Your task to perform on an android device: Find coffee shops on Maps Image 0: 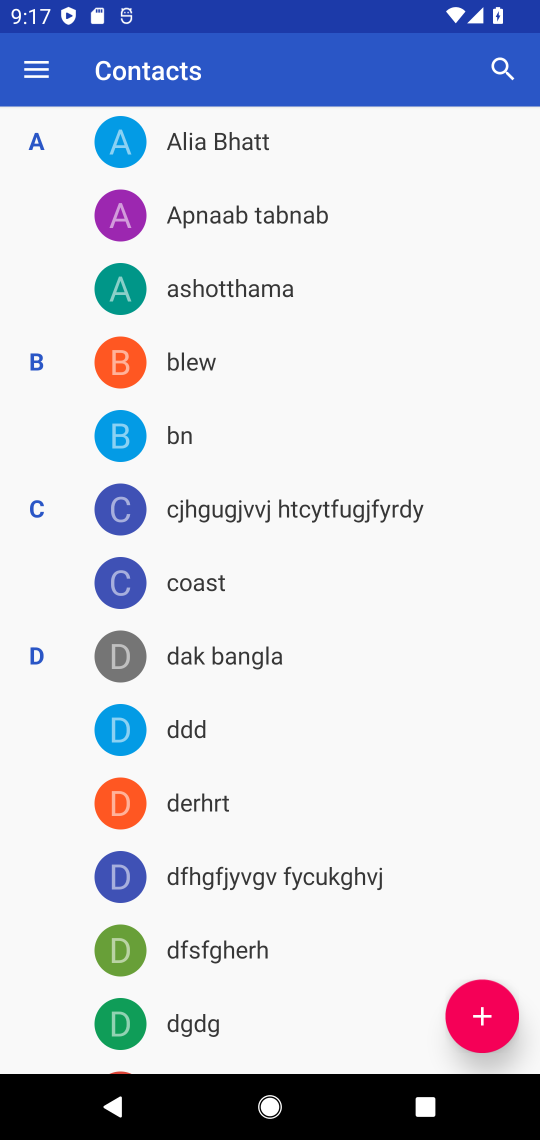
Step 0: press home button
Your task to perform on an android device: Find coffee shops on Maps Image 1: 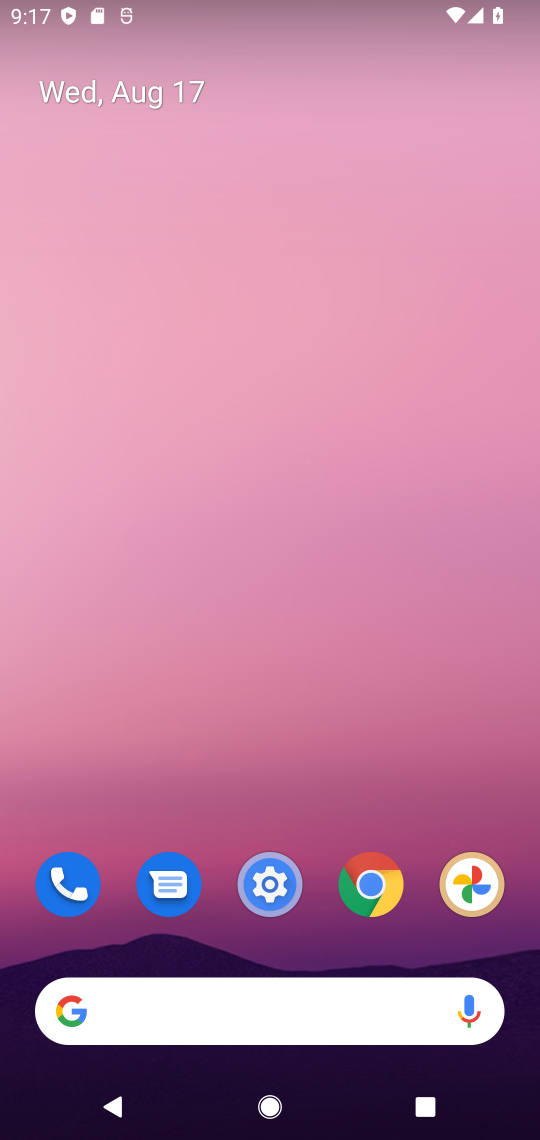
Step 1: drag from (284, 745) to (284, 61)
Your task to perform on an android device: Find coffee shops on Maps Image 2: 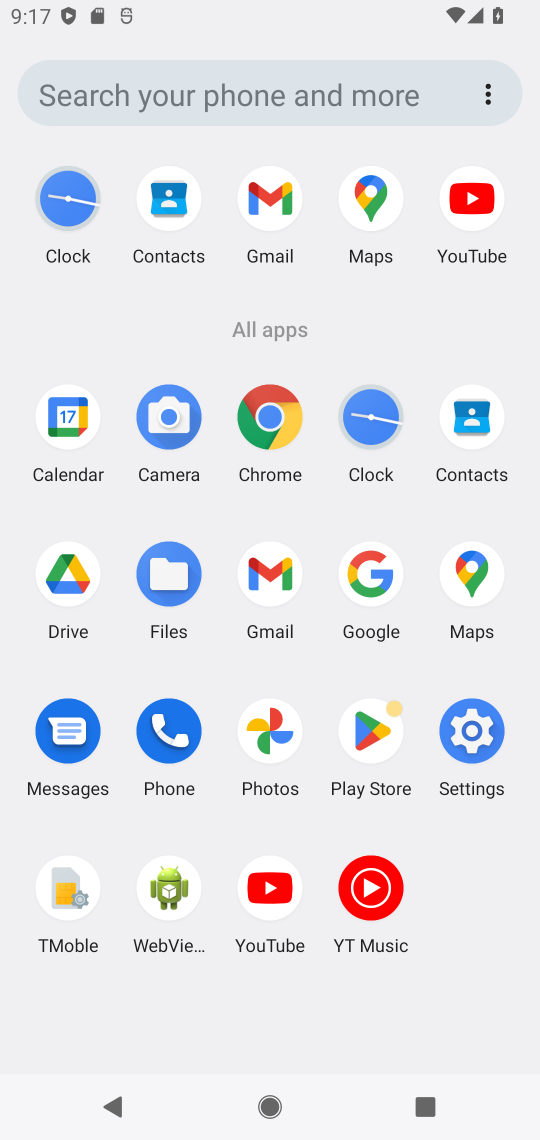
Step 2: click (379, 196)
Your task to perform on an android device: Find coffee shops on Maps Image 3: 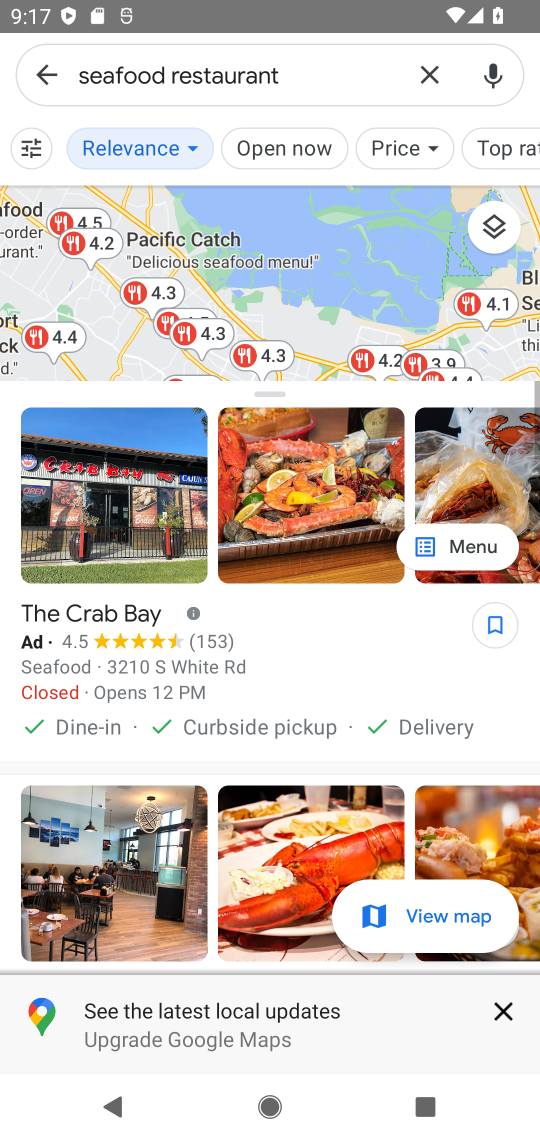
Step 3: click (425, 73)
Your task to perform on an android device: Find coffee shops on Maps Image 4: 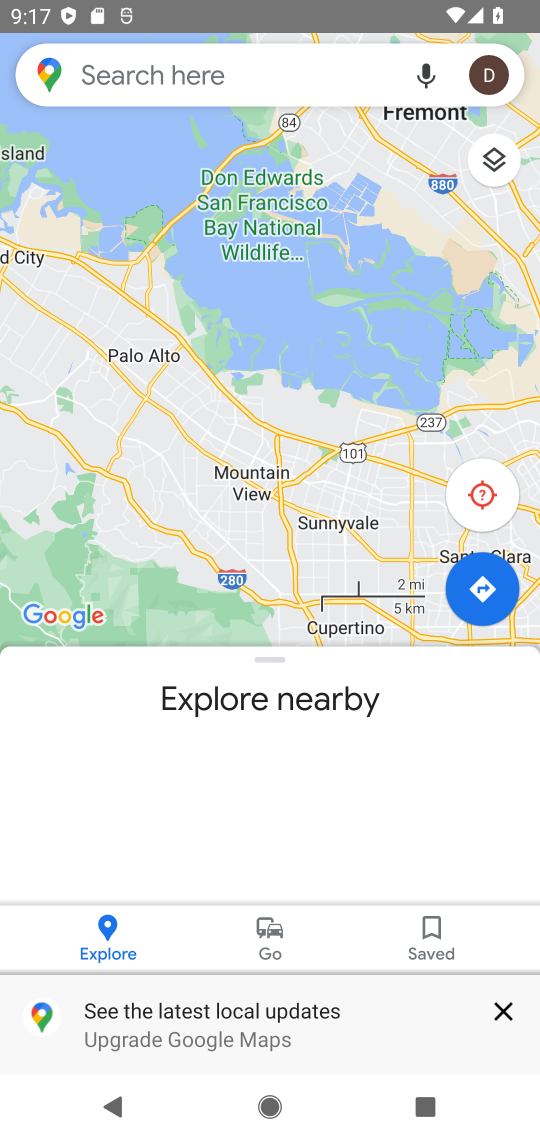
Step 4: click (250, 73)
Your task to perform on an android device: Find coffee shops on Maps Image 5: 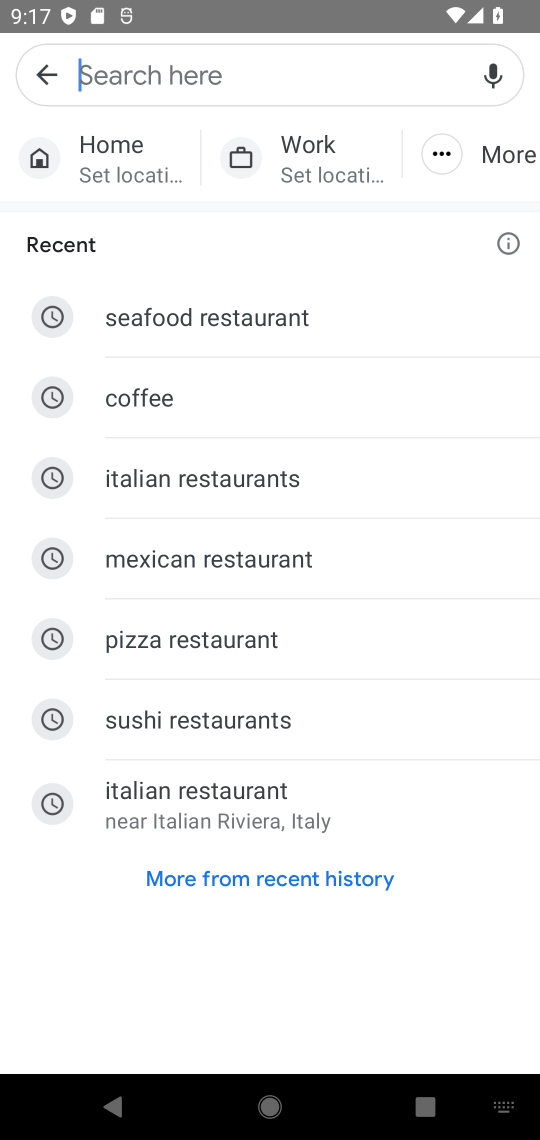
Step 5: type "coffee shops"
Your task to perform on an android device: Find coffee shops on Maps Image 6: 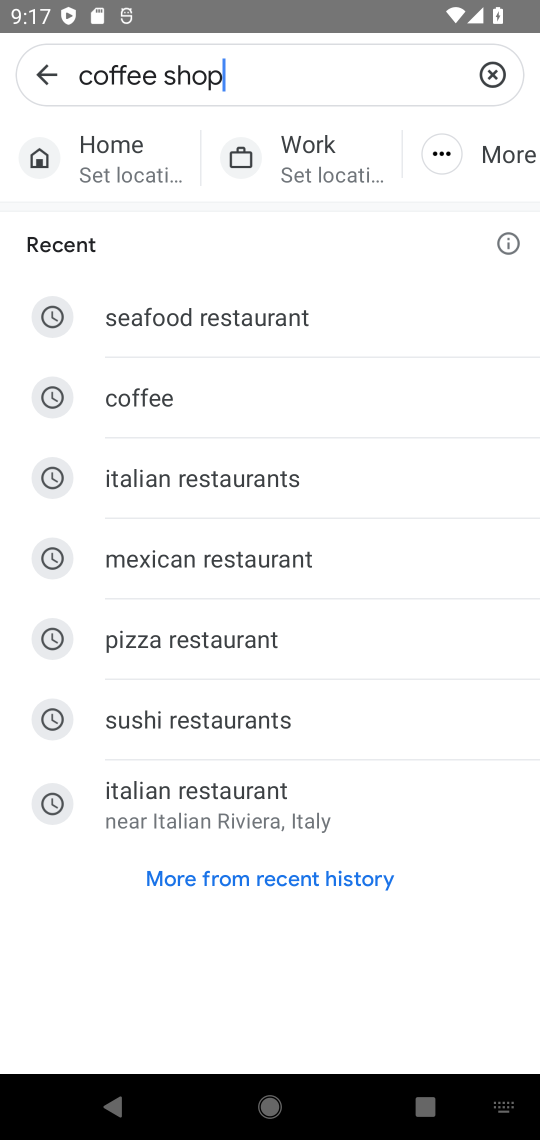
Step 6: type ""
Your task to perform on an android device: Find coffee shops on Maps Image 7: 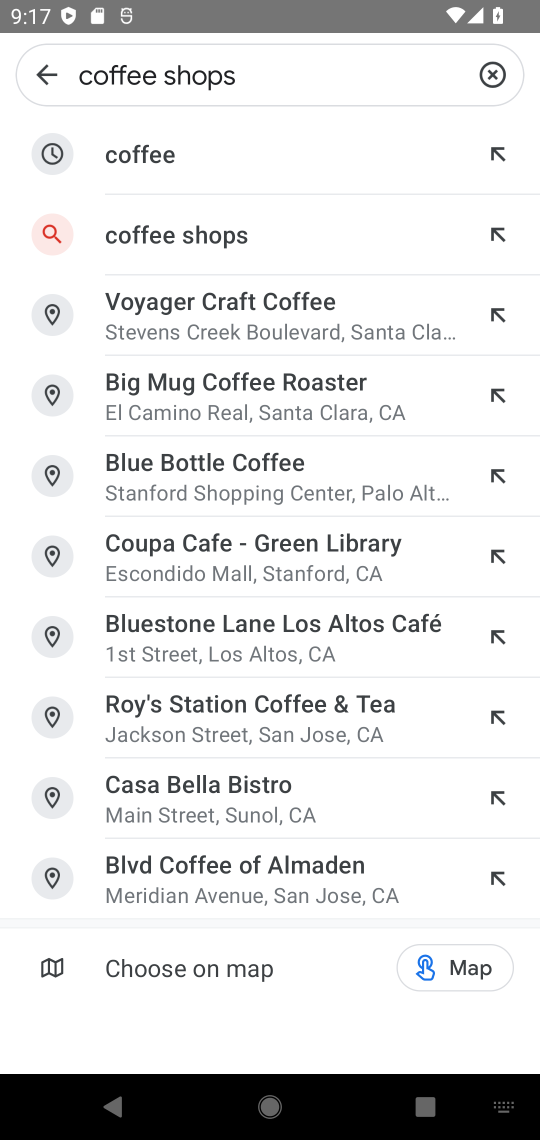
Step 7: click (161, 240)
Your task to perform on an android device: Find coffee shops on Maps Image 8: 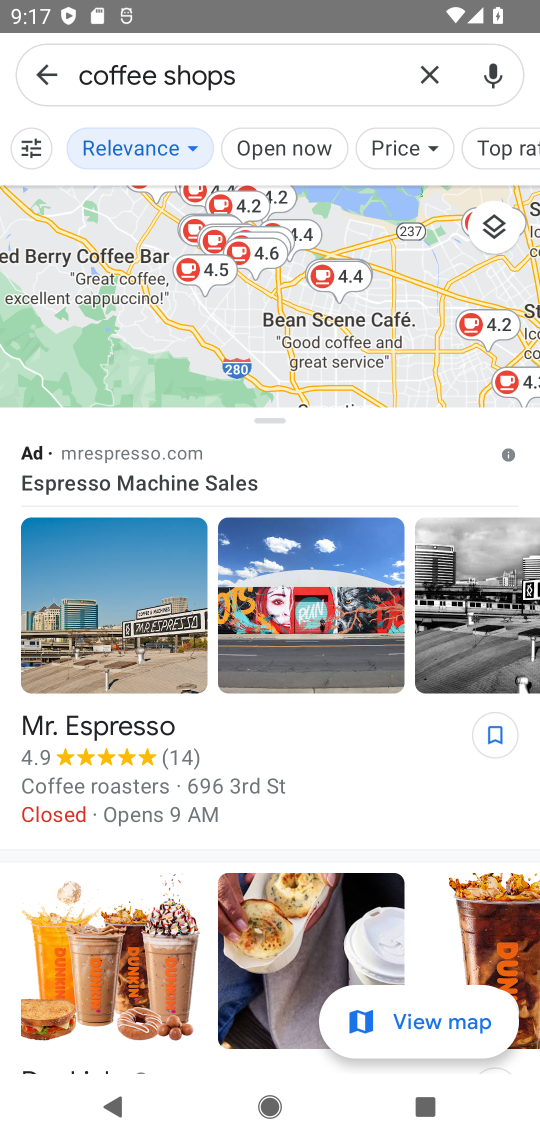
Step 8: task complete